Your task to perform on an android device: Open settings Image 0: 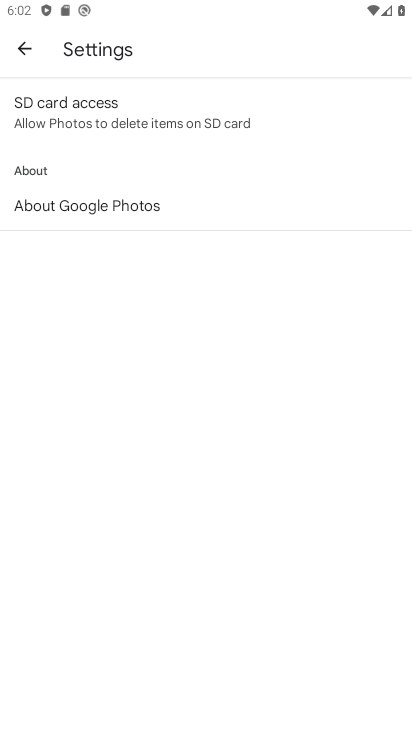
Step 0: press home button
Your task to perform on an android device: Open settings Image 1: 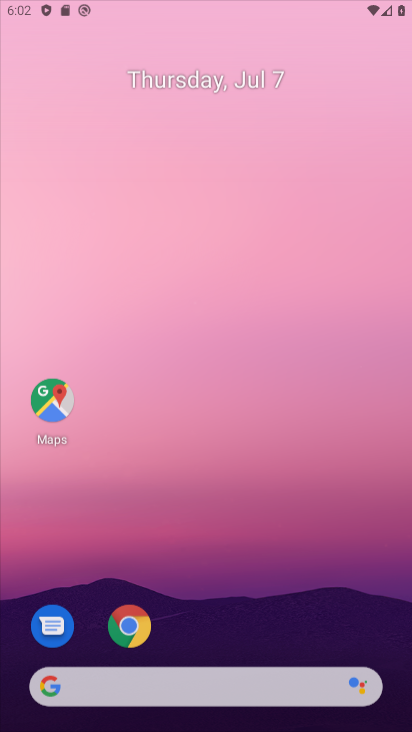
Step 1: press home button
Your task to perform on an android device: Open settings Image 2: 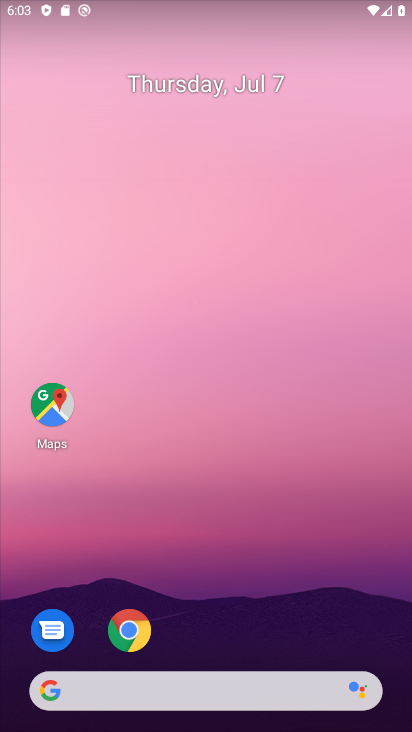
Step 2: drag from (196, 498) to (224, 174)
Your task to perform on an android device: Open settings Image 3: 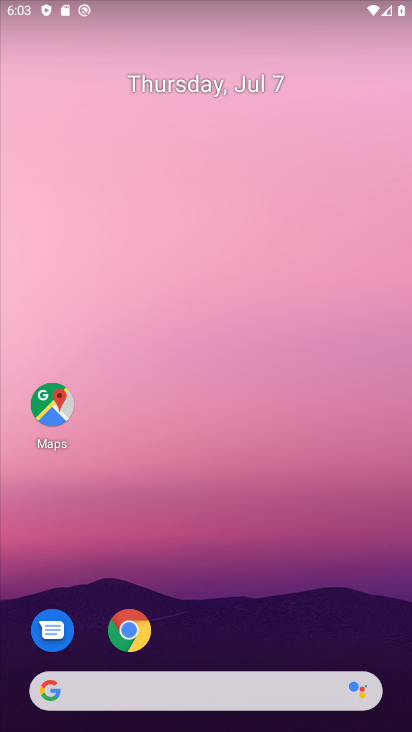
Step 3: drag from (218, 626) to (290, 111)
Your task to perform on an android device: Open settings Image 4: 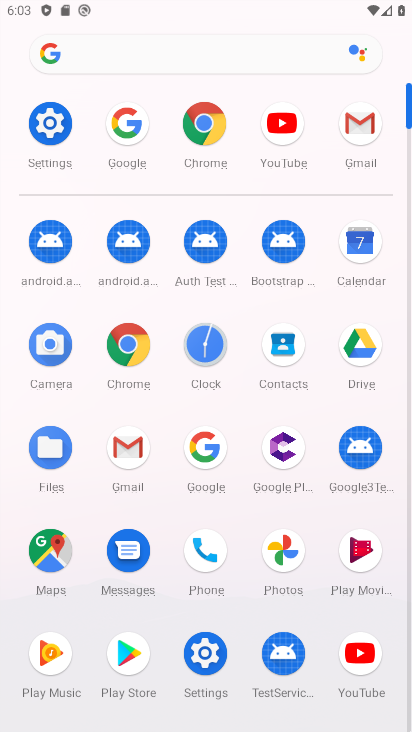
Step 4: click (57, 131)
Your task to perform on an android device: Open settings Image 5: 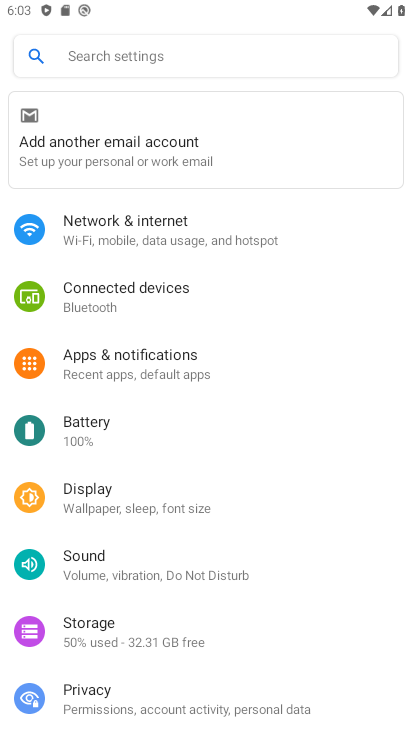
Step 5: click (57, 131)
Your task to perform on an android device: Open settings Image 6: 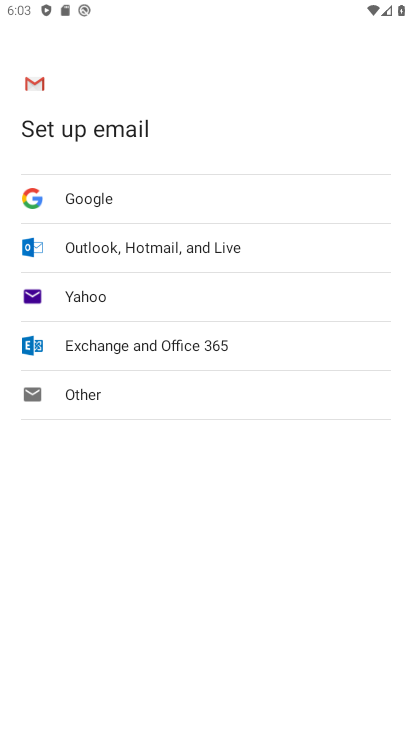
Step 6: task complete